Your task to perform on an android device: search for starred emails in the gmail app Image 0: 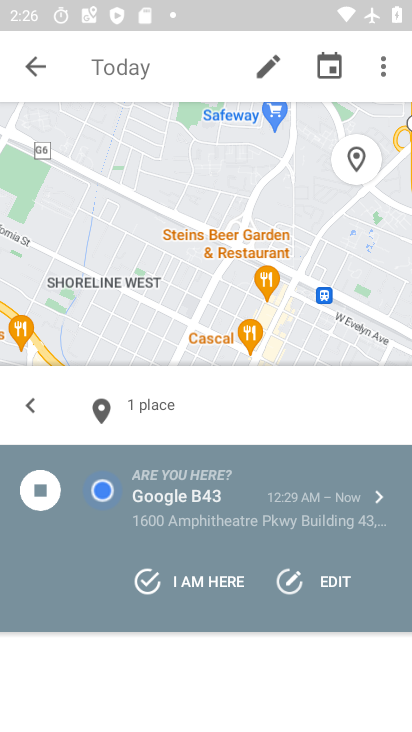
Step 0: press home button
Your task to perform on an android device: search for starred emails in the gmail app Image 1: 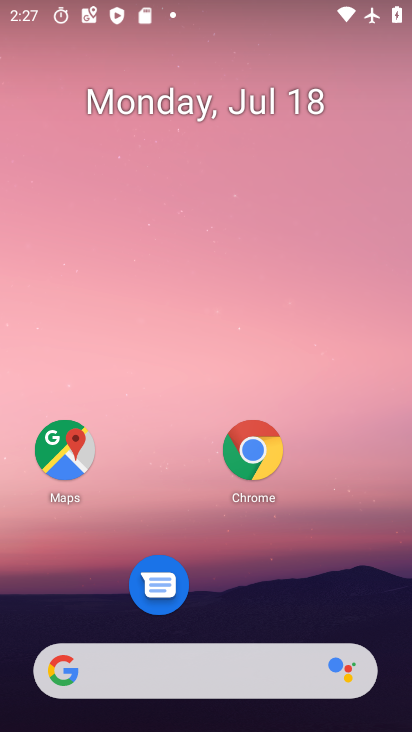
Step 1: drag from (170, 689) to (278, 148)
Your task to perform on an android device: search for starred emails in the gmail app Image 2: 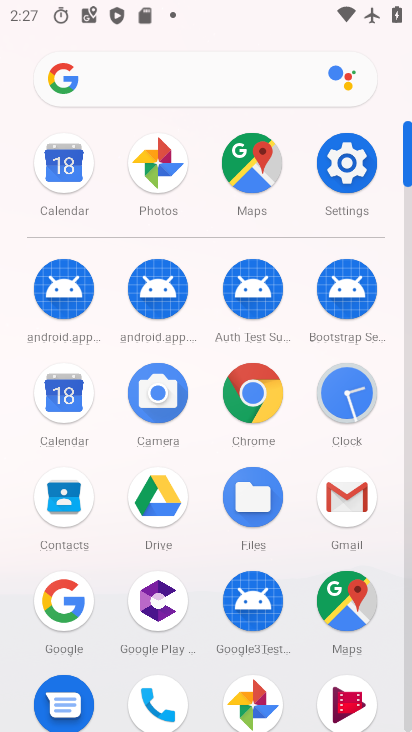
Step 2: click (346, 499)
Your task to perform on an android device: search for starred emails in the gmail app Image 3: 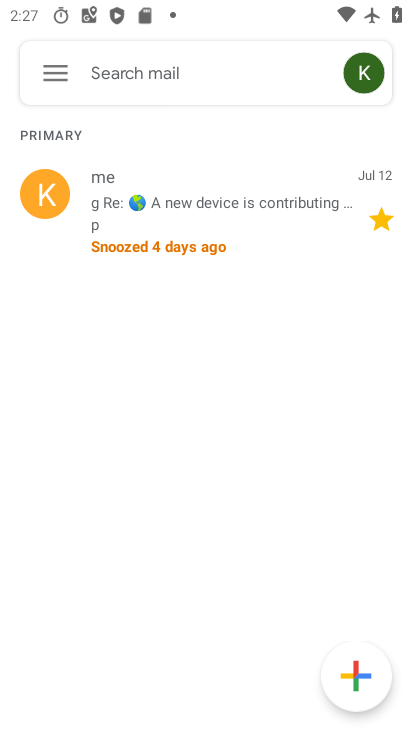
Step 3: click (49, 76)
Your task to perform on an android device: search for starred emails in the gmail app Image 4: 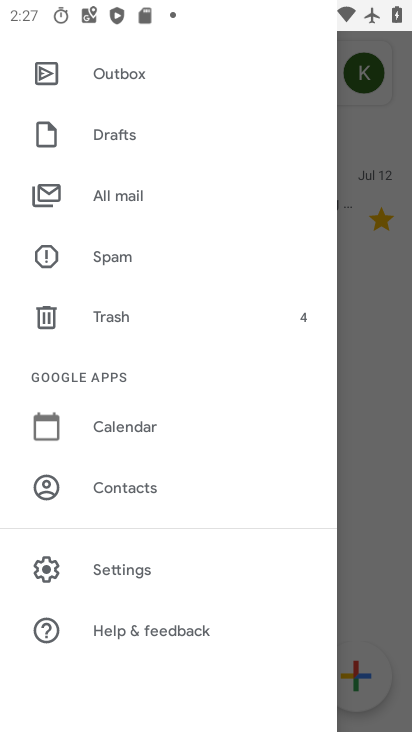
Step 4: drag from (199, 189) to (191, 557)
Your task to perform on an android device: search for starred emails in the gmail app Image 5: 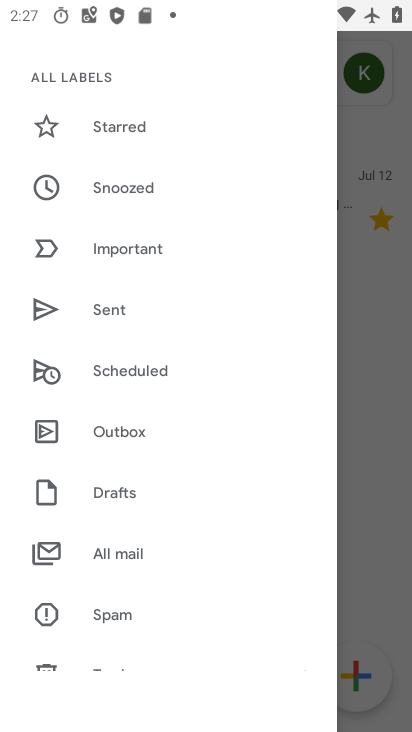
Step 5: click (136, 126)
Your task to perform on an android device: search for starred emails in the gmail app Image 6: 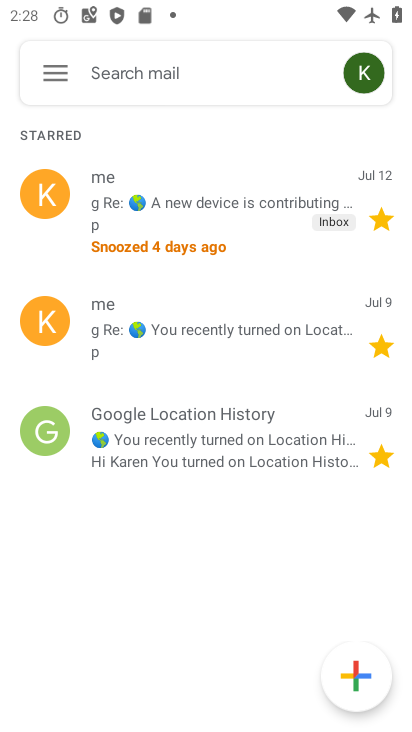
Step 6: task complete